Your task to perform on an android device: choose inbox layout in the gmail app Image 0: 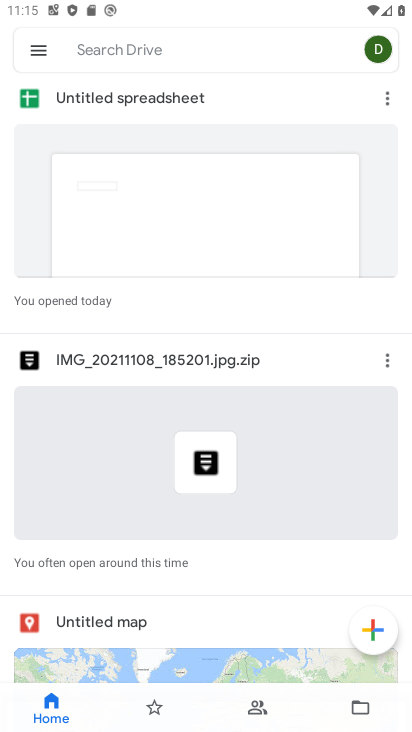
Step 0: press home button
Your task to perform on an android device: choose inbox layout in the gmail app Image 1: 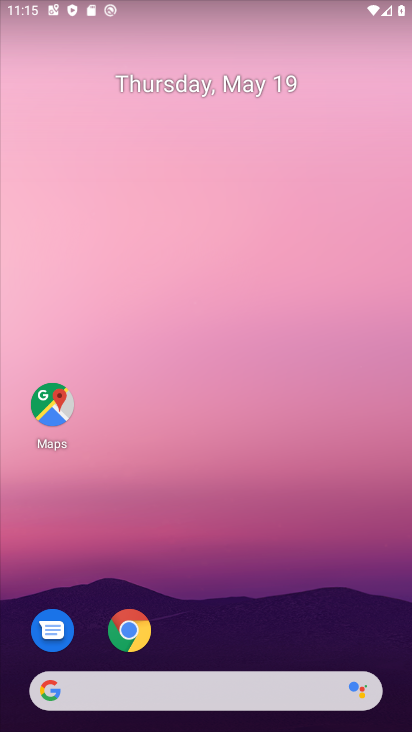
Step 1: drag from (244, 612) to (211, 58)
Your task to perform on an android device: choose inbox layout in the gmail app Image 2: 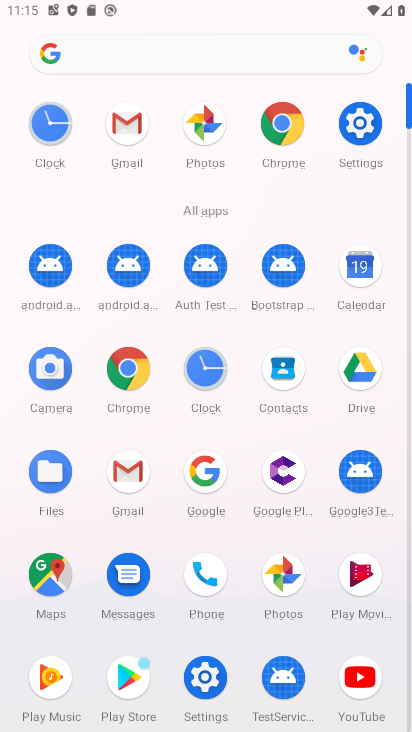
Step 2: click (124, 120)
Your task to perform on an android device: choose inbox layout in the gmail app Image 3: 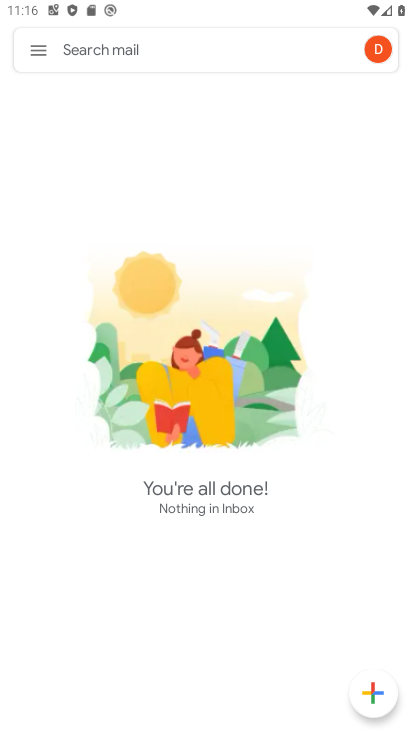
Step 3: click (43, 49)
Your task to perform on an android device: choose inbox layout in the gmail app Image 4: 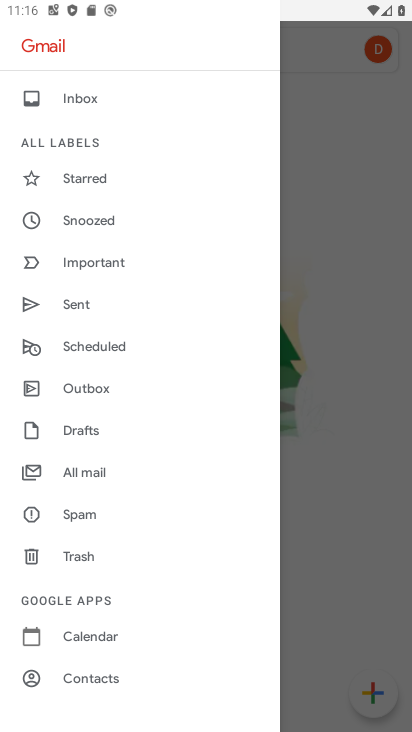
Step 4: drag from (114, 434) to (114, 360)
Your task to perform on an android device: choose inbox layout in the gmail app Image 5: 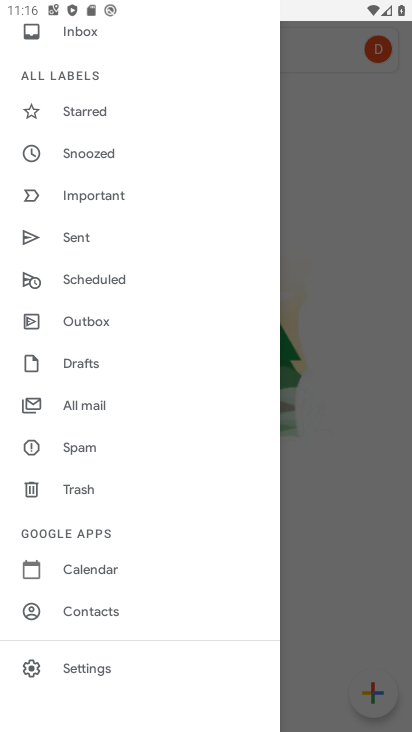
Step 5: drag from (123, 469) to (153, 401)
Your task to perform on an android device: choose inbox layout in the gmail app Image 6: 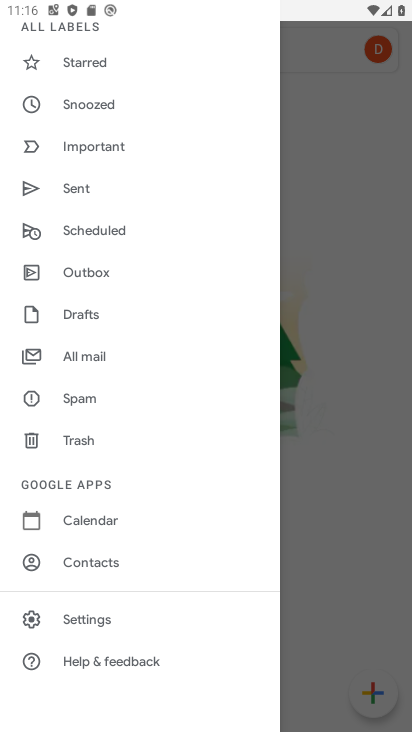
Step 6: click (92, 619)
Your task to perform on an android device: choose inbox layout in the gmail app Image 7: 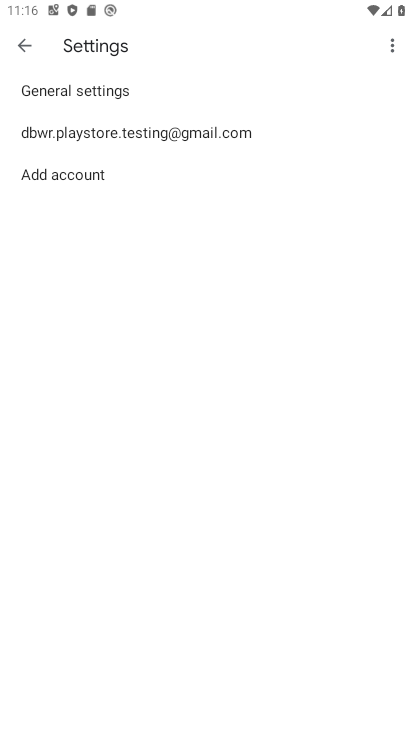
Step 7: click (117, 131)
Your task to perform on an android device: choose inbox layout in the gmail app Image 8: 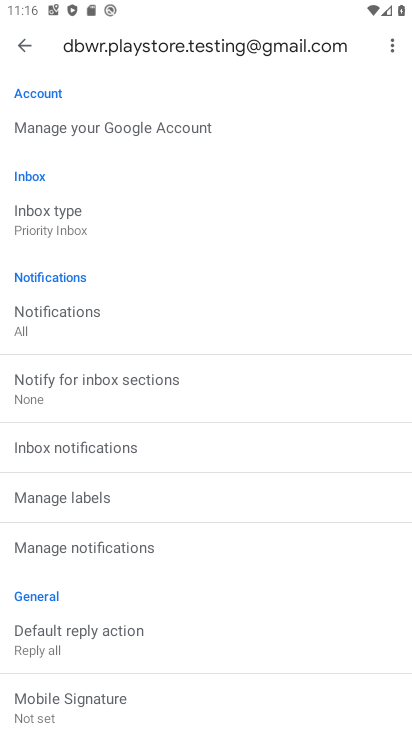
Step 8: click (85, 224)
Your task to perform on an android device: choose inbox layout in the gmail app Image 9: 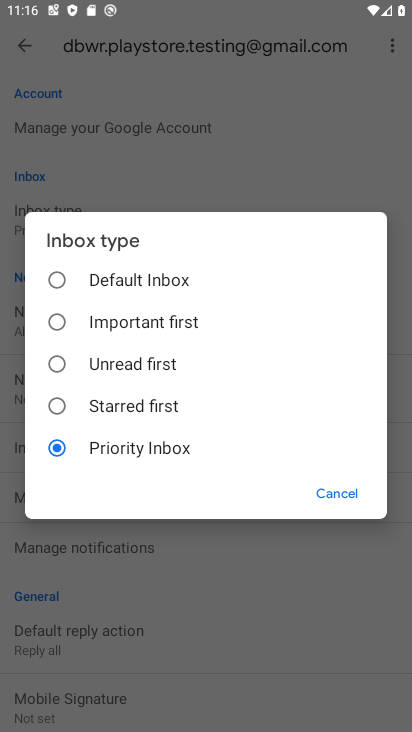
Step 9: click (50, 405)
Your task to perform on an android device: choose inbox layout in the gmail app Image 10: 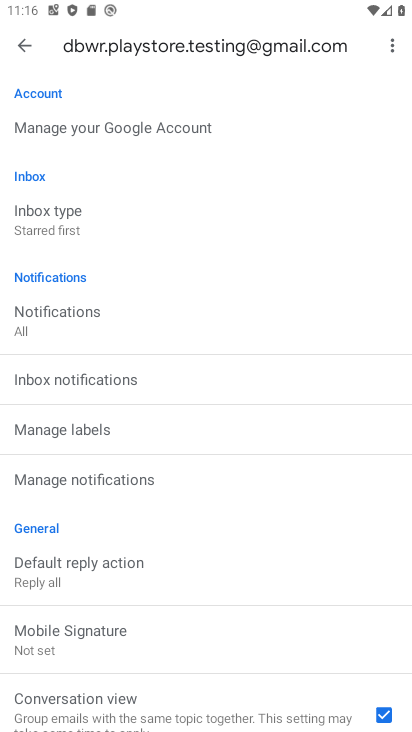
Step 10: task complete